Your task to perform on an android device: turn off notifications in google photos Image 0: 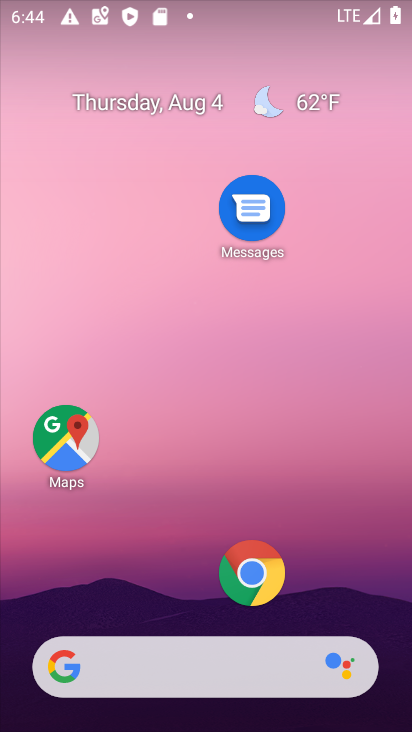
Step 0: press home button
Your task to perform on an android device: turn off notifications in google photos Image 1: 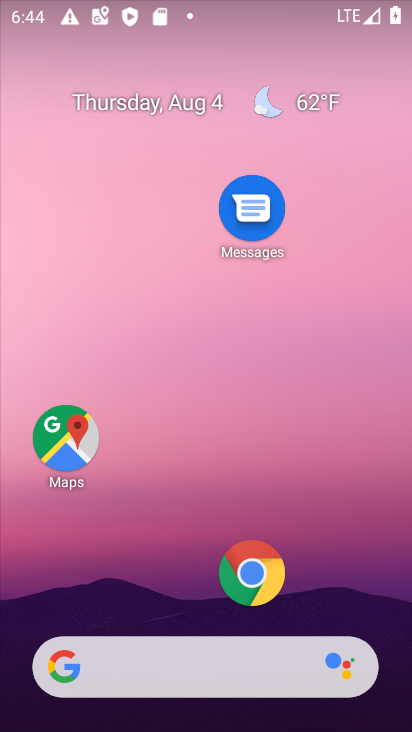
Step 1: drag from (191, 611) to (292, 158)
Your task to perform on an android device: turn off notifications in google photos Image 2: 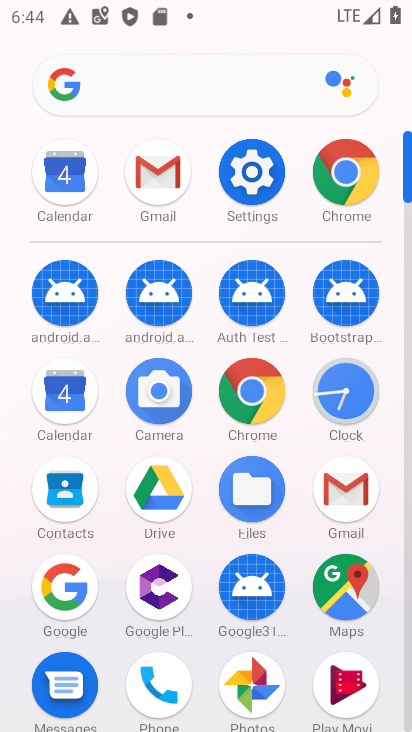
Step 2: click (259, 685)
Your task to perform on an android device: turn off notifications in google photos Image 3: 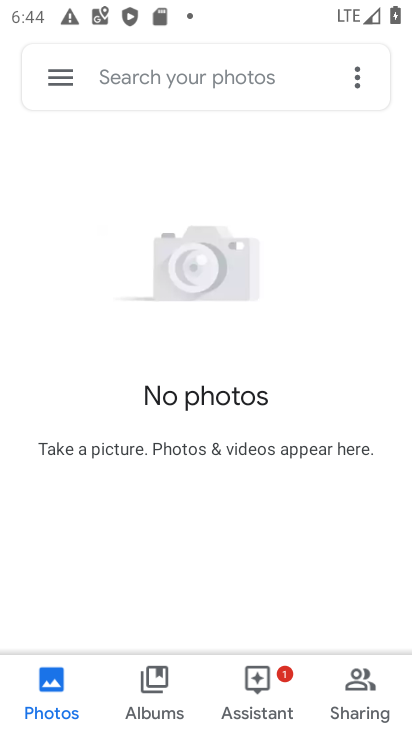
Step 3: click (358, 78)
Your task to perform on an android device: turn off notifications in google photos Image 4: 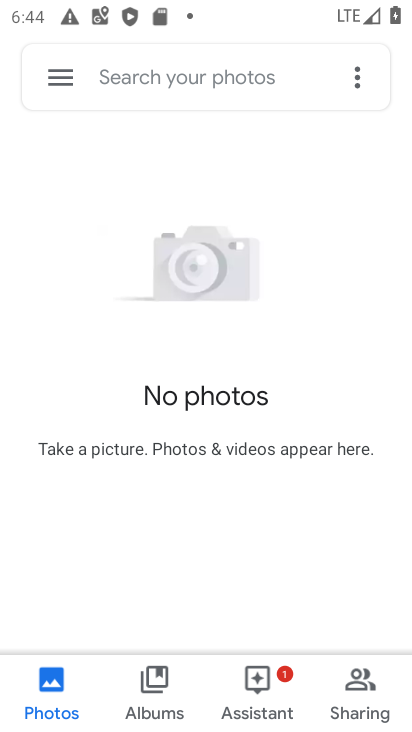
Step 4: click (63, 83)
Your task to perform on an android device: turn off notifications in google photos Image 5: 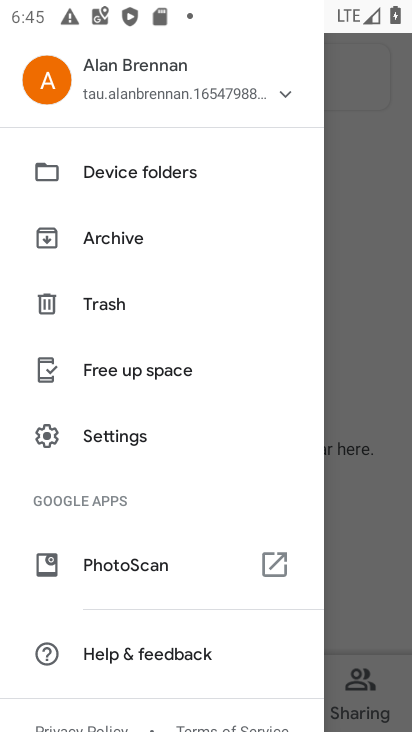
Step 5: click (100, 424)
Your task to perform on an android device: turn off notifications in google photos Image 6: 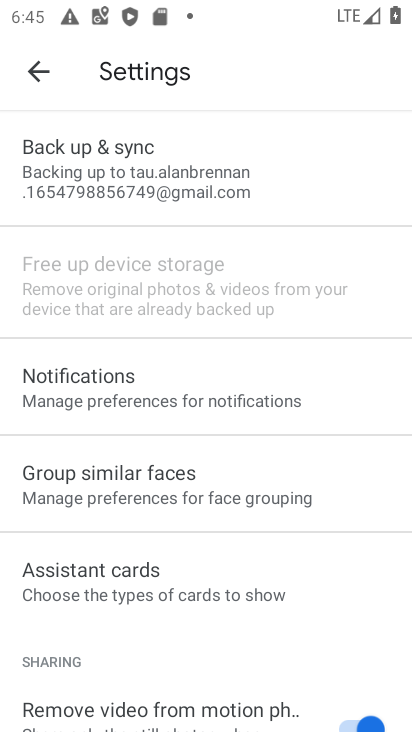
Step 6: click (105, 390)
Your task to perform on an android device: turn off notifications in google photos Image 7: 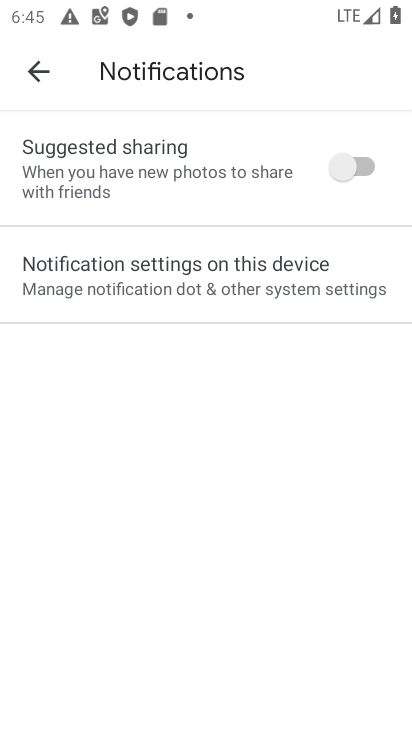
Step 7: task complete